Your task to perform on an android device: Open Youtube and go to the subscriptions tab Image 0: 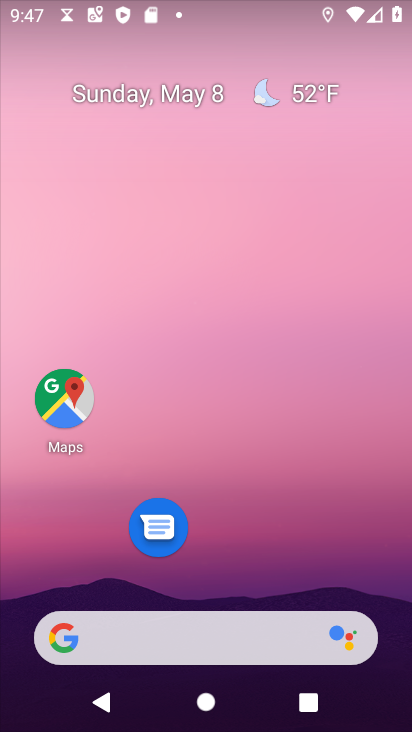
Step 0: drag from (288, 551) to (227, 11)
Your task to perform on an android device: Open Youtube and go to the subscriptions tab Image 1: 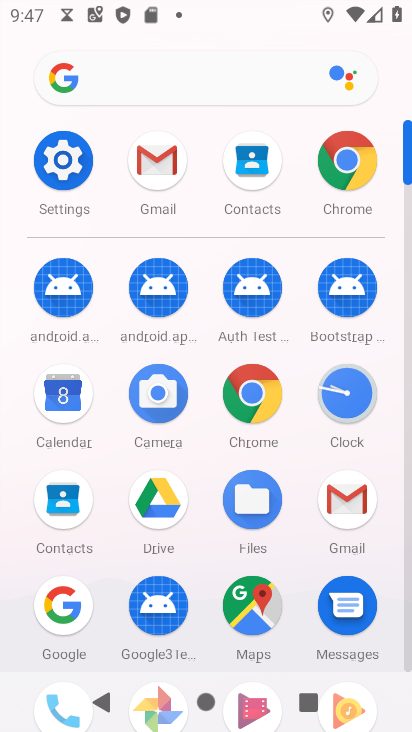
Step 1: drag from (291, 562) to (276, 266)
Your task to perform on an android device: Open Youtube and go to the subscriptions tab Image 2: 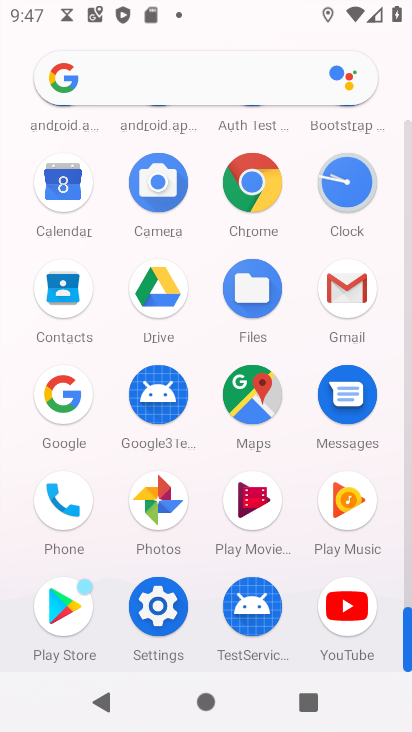
Step 2: click (343, 604)
Your task to perform on an android device: Open Youtube and go to the subscriptions tab Image 3: 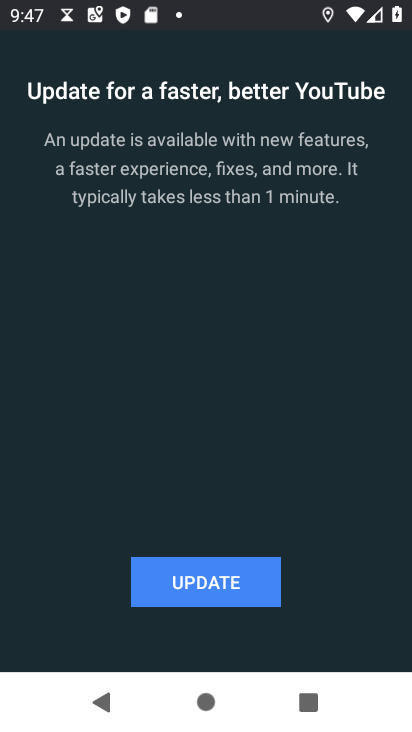
Step 3: click (228, 582)
Your task to perform on an android device: Open Youtube and go to the subscriptions tab Image 4: 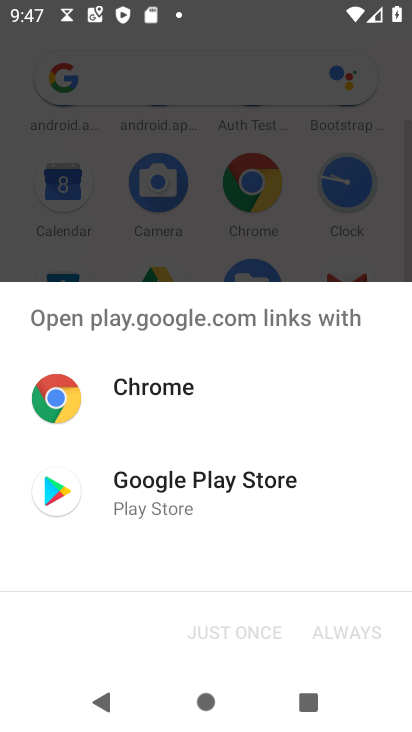
Step 4: click (196, 493)
Your task to perform on an android device: Open Youtube and go to the subscriptions tab Image 5: 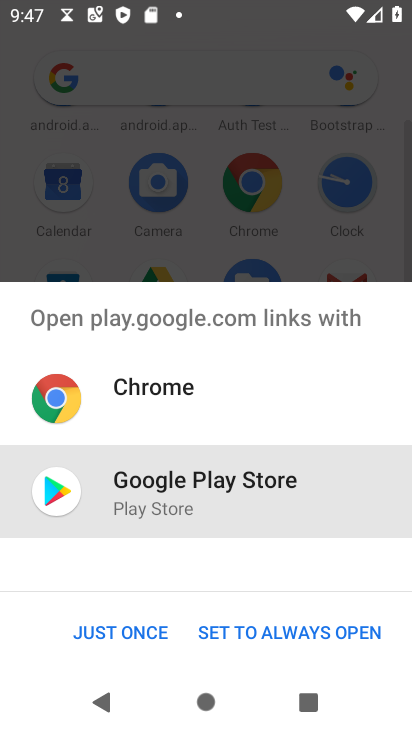
Step 5: click (128, 635)
Your task to perform on an android device: Open Youtube and go to the subscriptions tab Image 6: 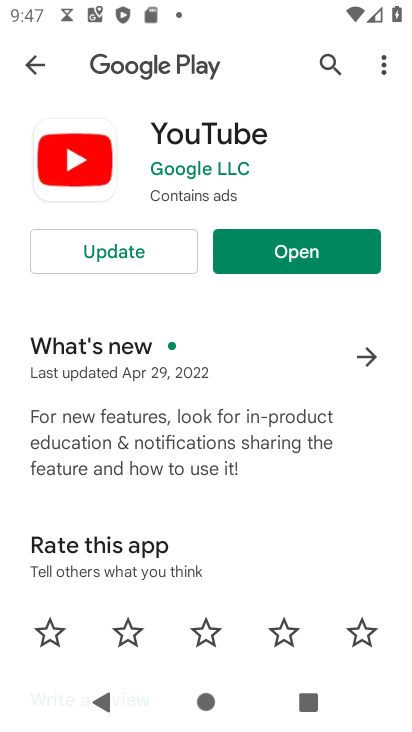
Step 6: click (136, 243)
Your task to perform on an android device: Open Youtube and go to the subscriptions tab Image 7: 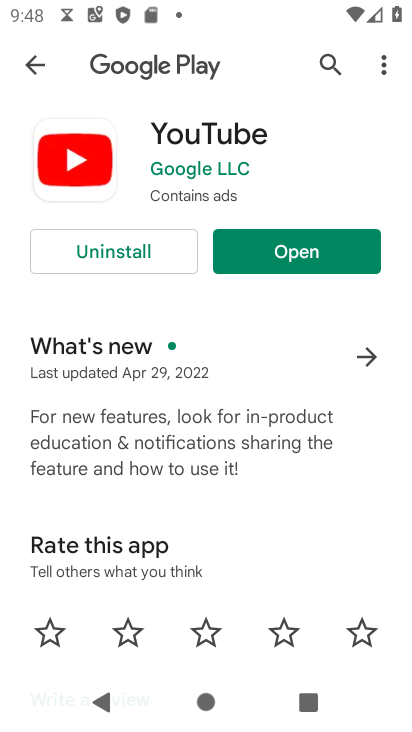
Step 7: click (262, 253)
Your task to perform on an android device: Open Youtube and go to the subscriptions tab Image 8: 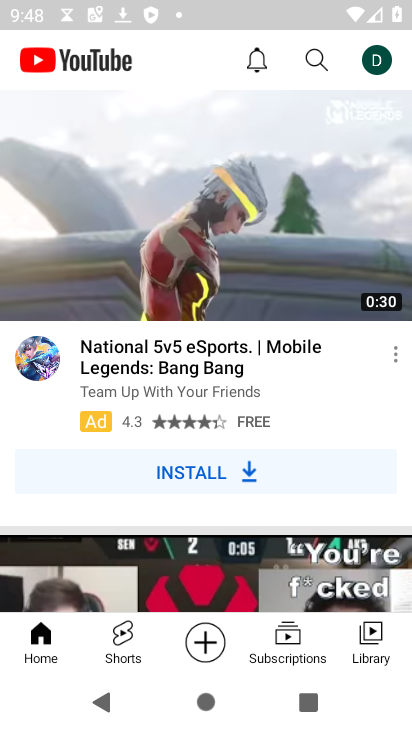
Step 8: click (294, 640)
Your task to perform on an android device: Open Youtube and go to the subscriptions tab Image 9: 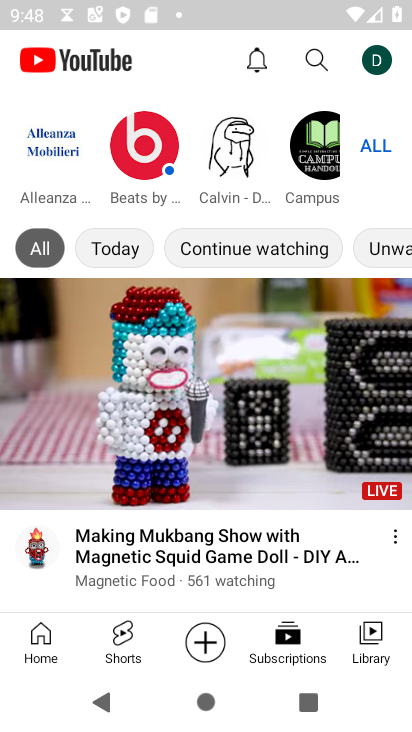
Step 9: task complete